Your task to perform on an android device: change notifications settings Image 0: 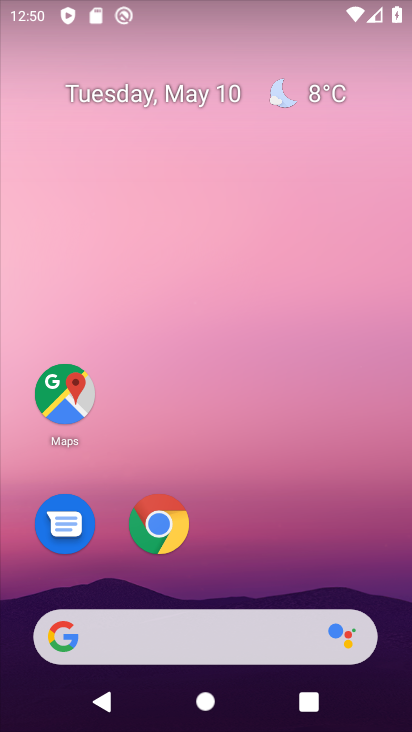
Step 0: drag from (266, 484) to (220, 1)
Your task to perform on an android device: change notifications settings Image 1: 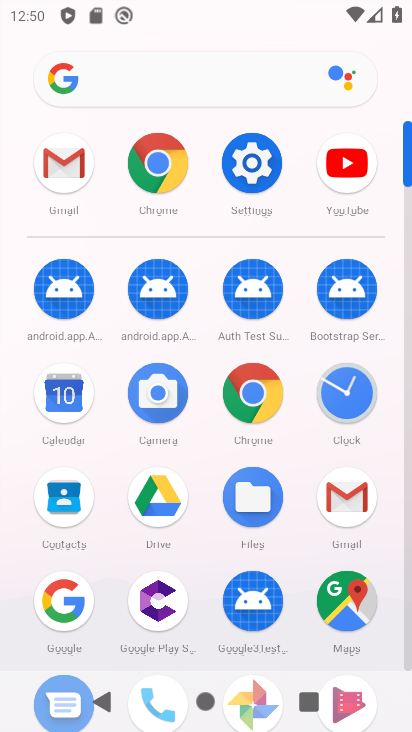
Step 1: click (253, 171)
Your task to perform on an android device: change notifications settings Image 2: 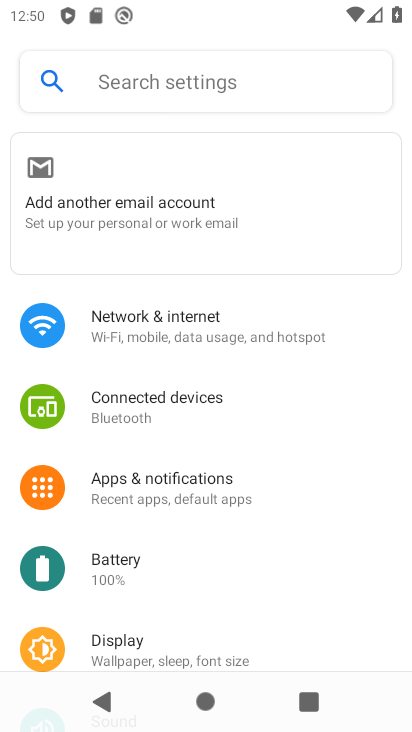
Step 2: click (189, 464)
Your task to perform on an android device: change notifications settings Image 3: 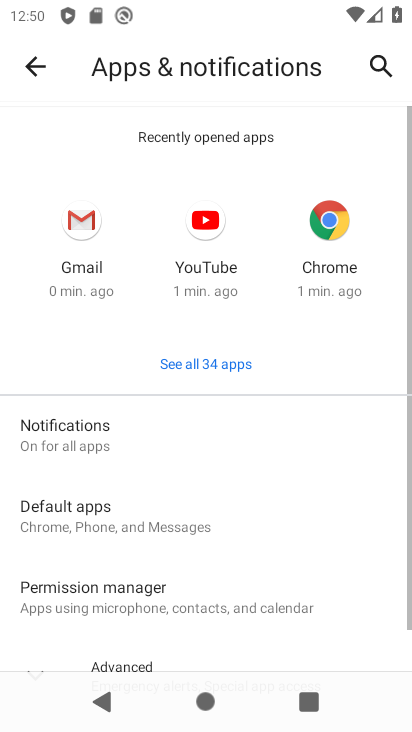
Step 3: click (112, 420)
Your task to perform on an android device: change notifications settings Image 4: 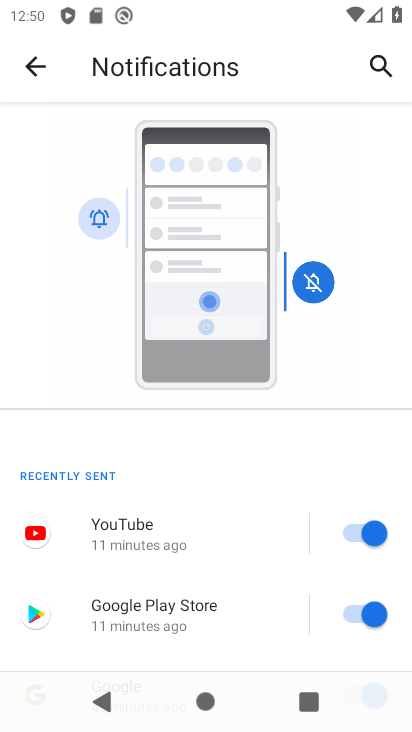
Step 4: drag from (218, 525) to (264, 219)
Your task to perform on an android device: change notifications settings Image 5: 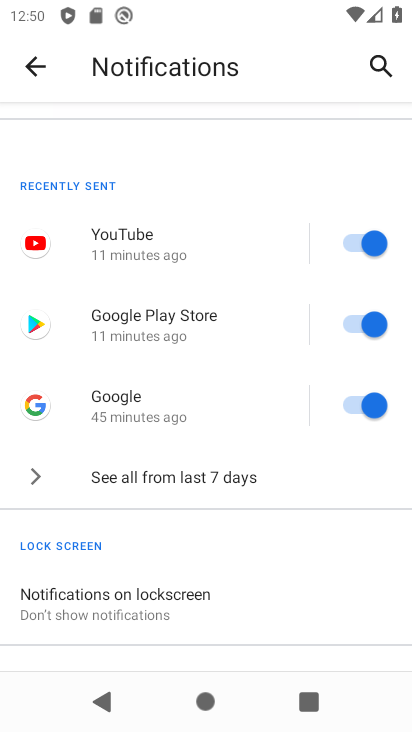
Step 5: click (227, 473)
Your task to perform on an android device: change notifications settings Image 6: 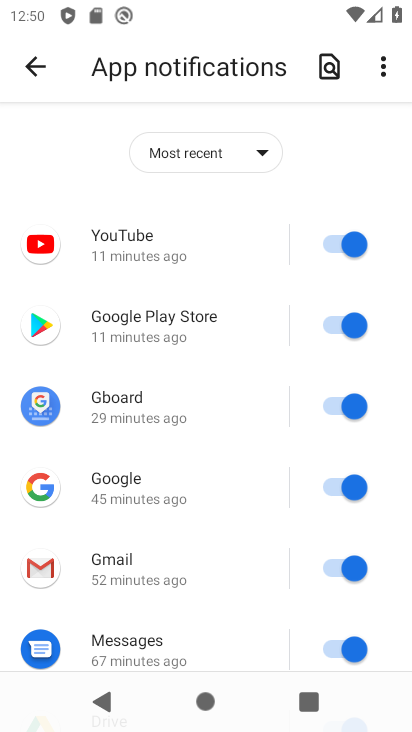
Step 6: click (343, 238)
Your task to perform on an android device: change notifications settings Image 7: 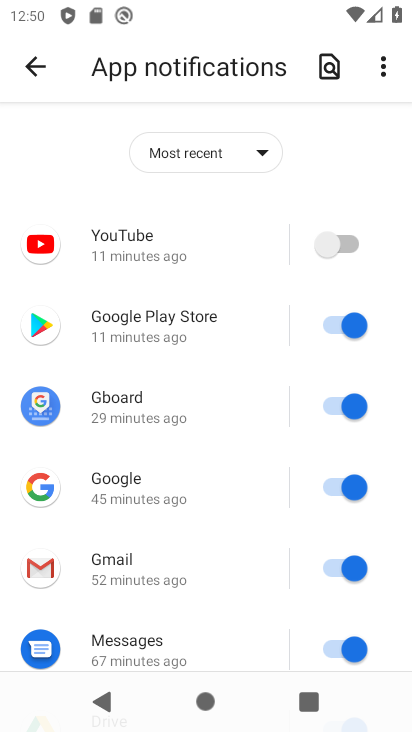
Step 7: click (341, 318)
Your task to perform on an android device: change notifications settings Image 8: 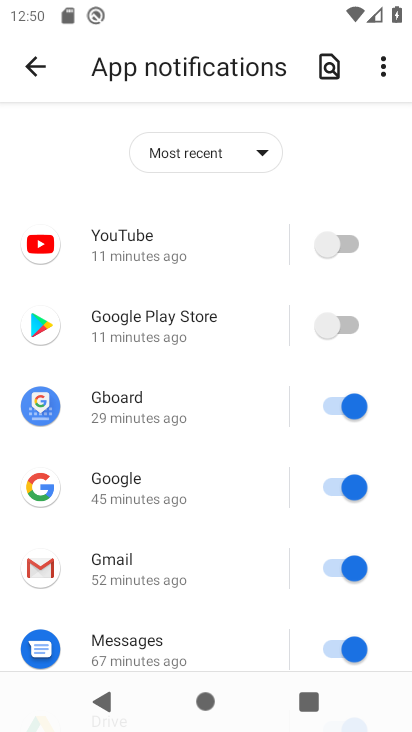
Step 8: click (348, 401)
Your task to perform on an android device: change notifications settings Image 9: 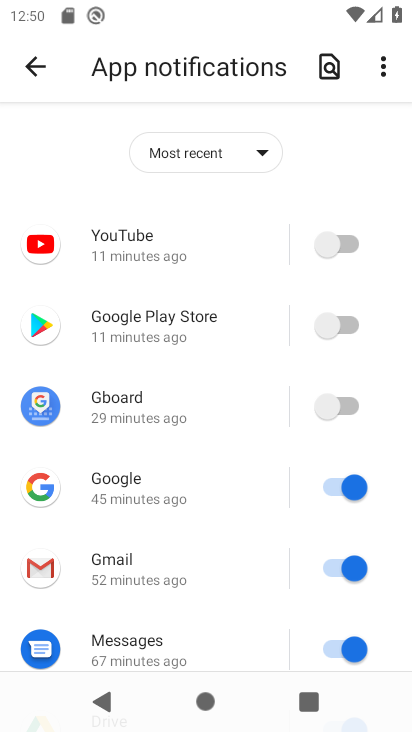
Step 9: click (343, 490)
Your task to perform on an android device: change notifications settings Image 10: 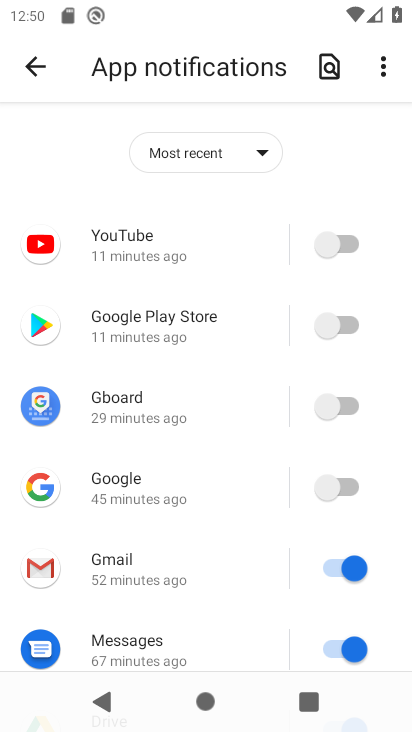
Step 10: click (342, 569)
Your task to perform on an android device: change notifications settings Image 11: 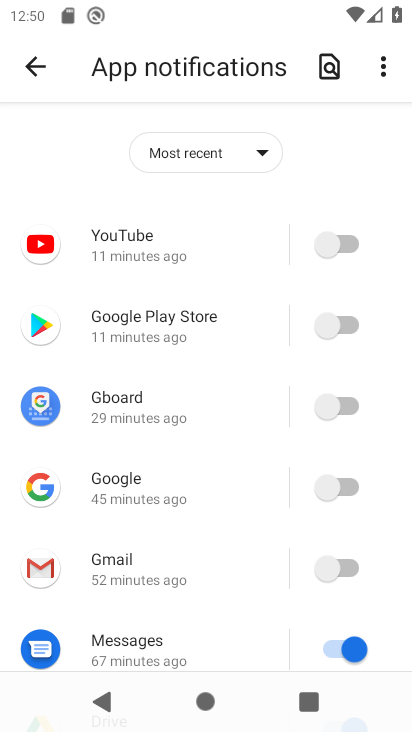
Step 11: drag from (199, 580) to (223, 139)
Your task to perform on an android device: change notifications settings Image 12: 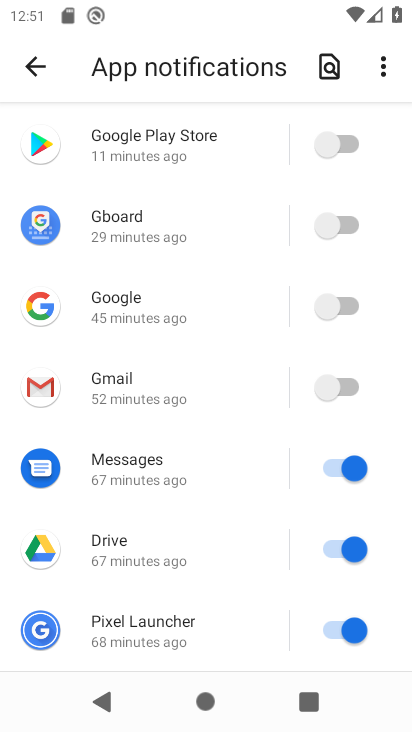
Step 12: drag from (229, 503) to (248, 301)
Your task to perform on an android device: change notifications settings Image 13: 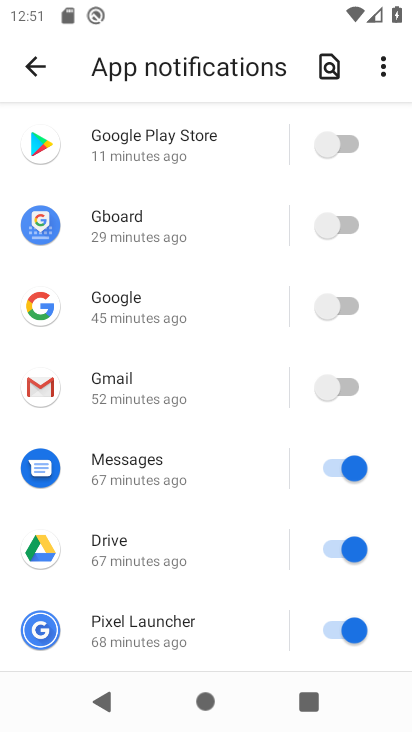
Step 13: click (331, 466)
Your task to perform on an android device: change notifications settings Image 14: 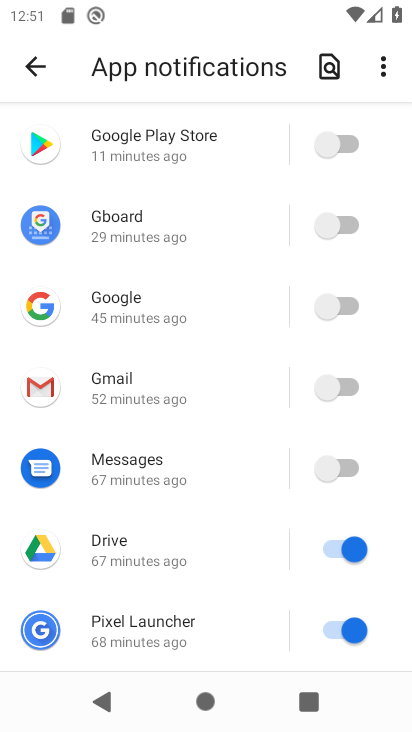
Step 14: click (331, 543)
Your task to perform on an android device: change notifications settings Image 15: 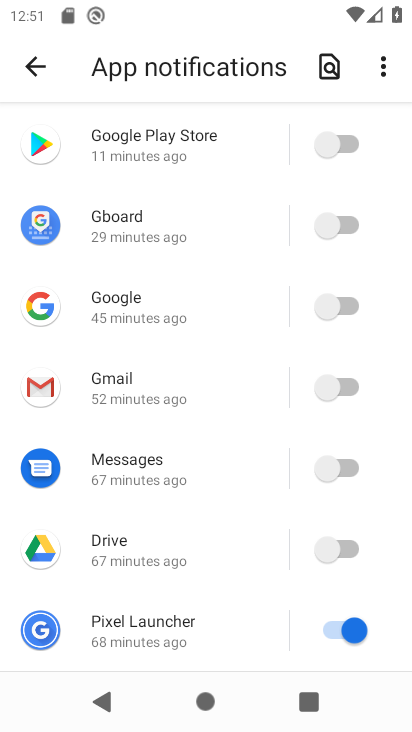
Step 15: click (336, 635)
Your task to perform on an android device: change notifications settings Image 16: 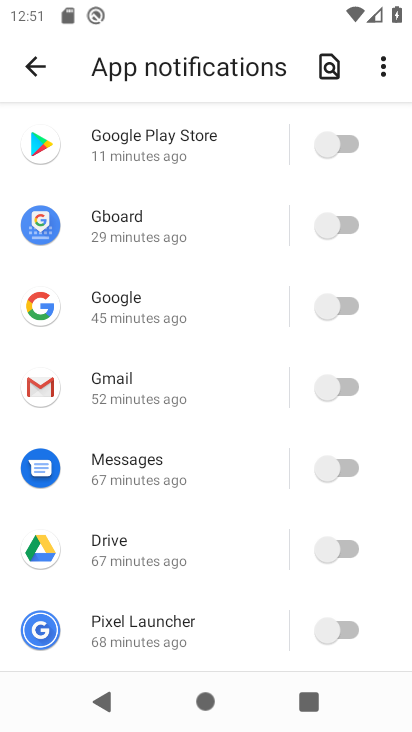
Step 16: task complete